Your task to perform on an android device: toggle wifi Image 0: 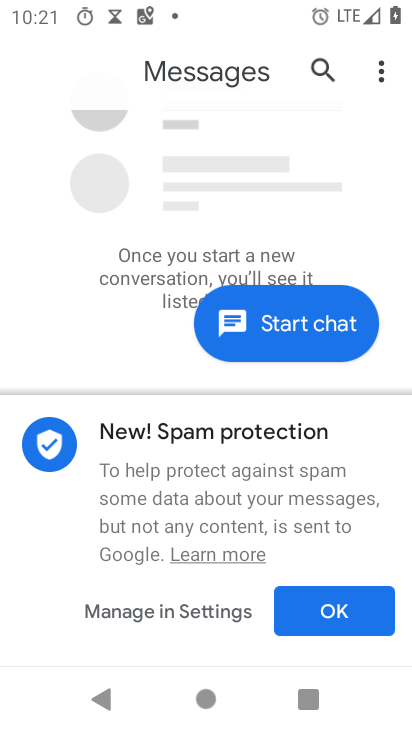
Step 0: press home button
Your task to perform on an android device: toggle wifi Image 1: 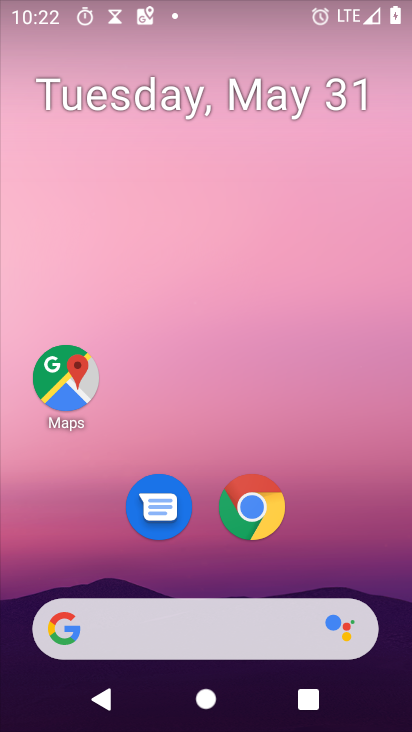
Step 1: drag from (162, 3) to (83, 376)
Your task to perform on an android device: toggle wifi Image 2: 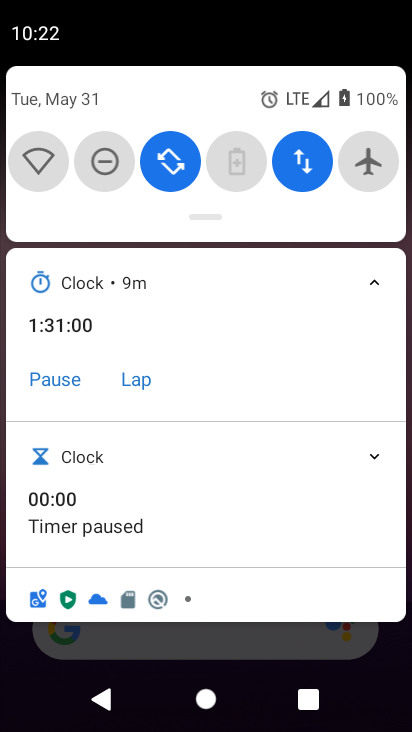
Step 2: click (57, 170)
Your task to perform on an android device: toggle wifi Image 3: 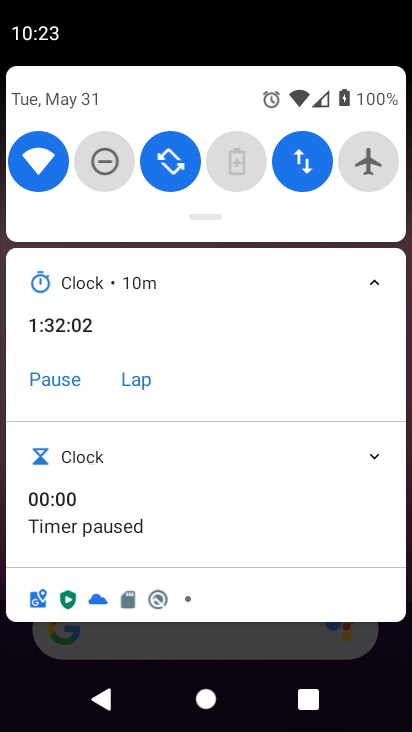
Step 3: task complete